Your task to perform on an android device: turn off javascript in the chrome app Image 0: 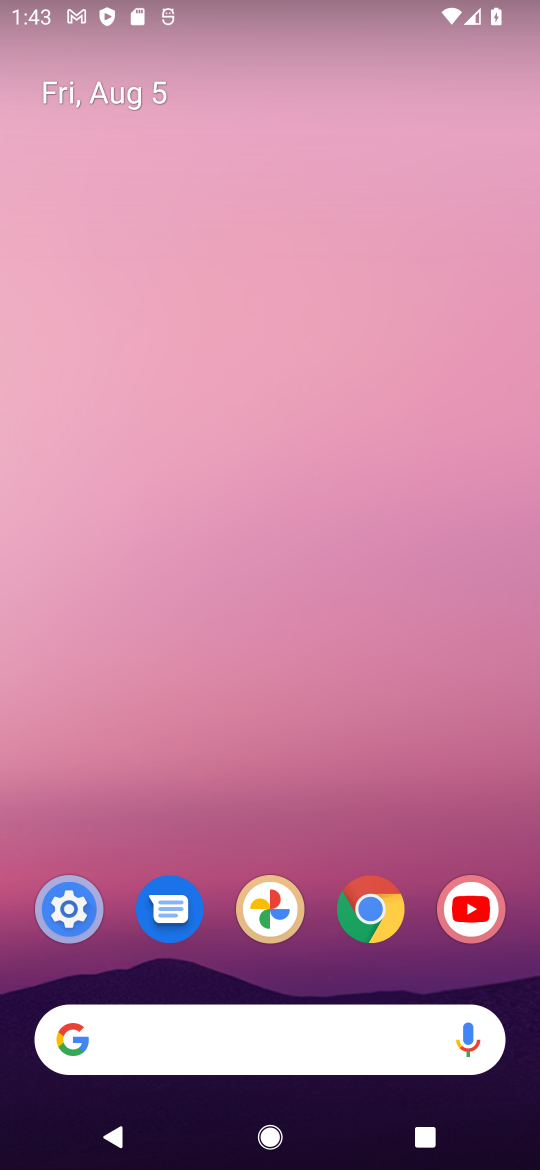
Step 0: click (394, 918)
Your task to perform on an android device: turn off javascript in the chrome app Image 1: 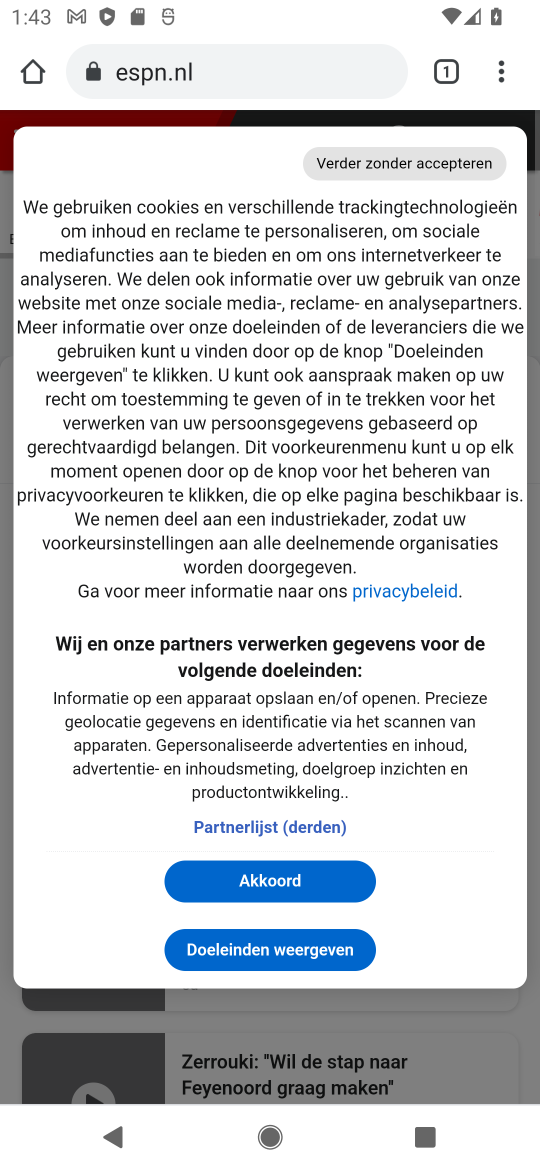
Step 1: click (500, 65)
Your task to perform on an android device: turn off javascript in the chrome app Image 2: 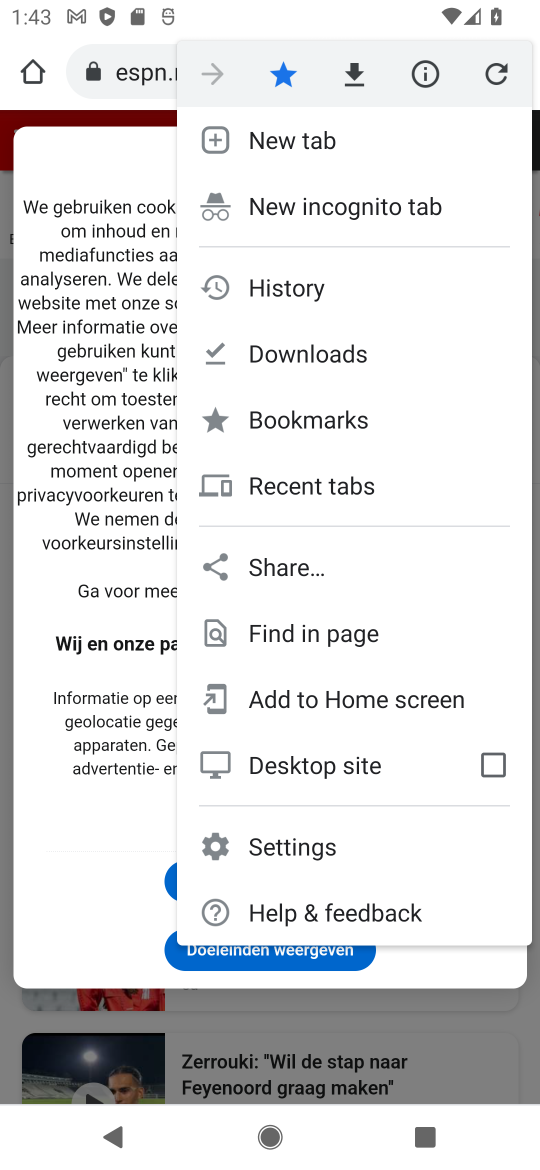
Step 2: click (331, 834)
Your task to perform on an android device: turn off javascript in the chrome app Image 3: 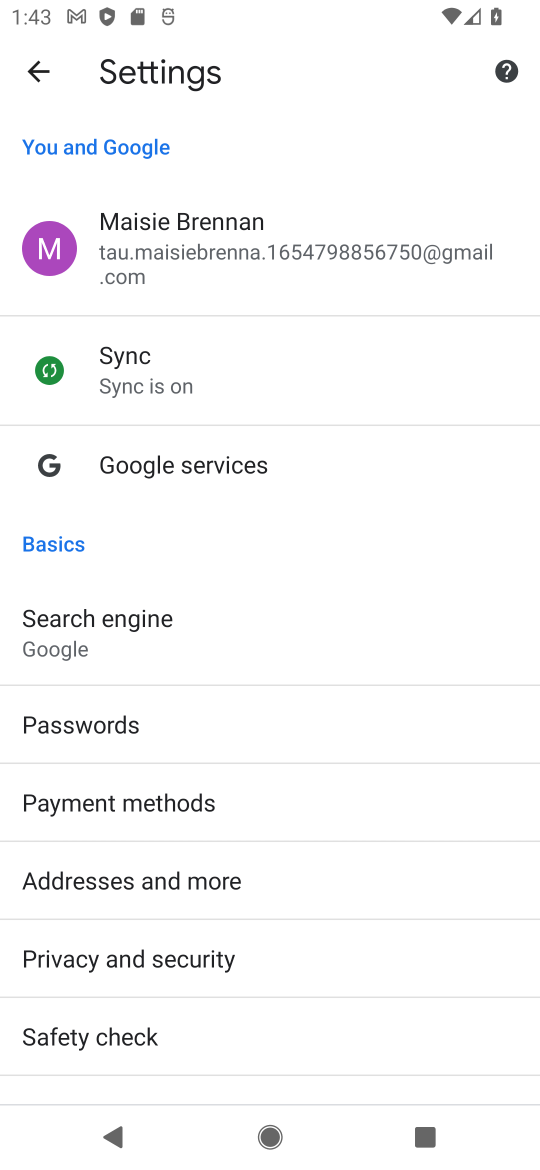
Step 3: drag from (249, 1008) to (333, 393)
Your task to perform on an android device: turn off javascript in the chrome app Image 4: 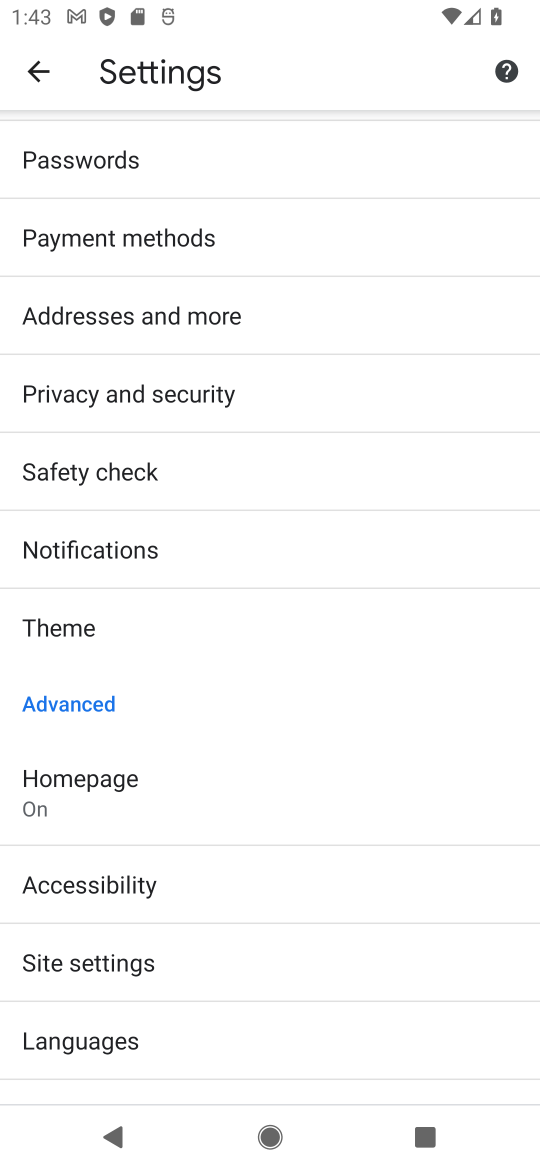
Step 4: click (226, 986)
Your task to perform on an android device: turn off javascript in the chrome app Image 5: 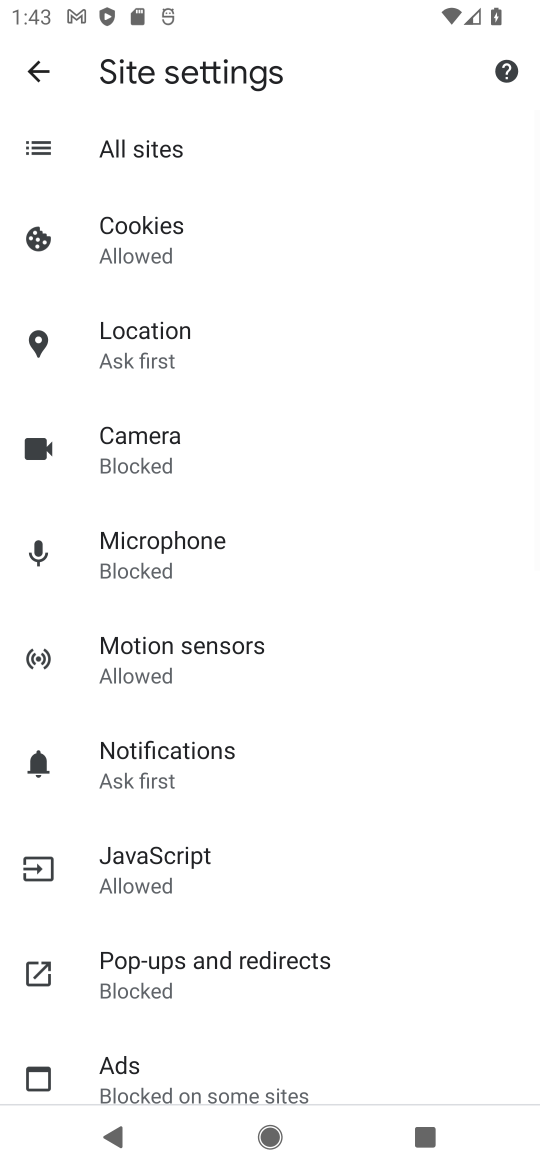
Step 5: click (202, 891)
Your task to perform on an android device: turn off javascript in the chrome app Image 6: 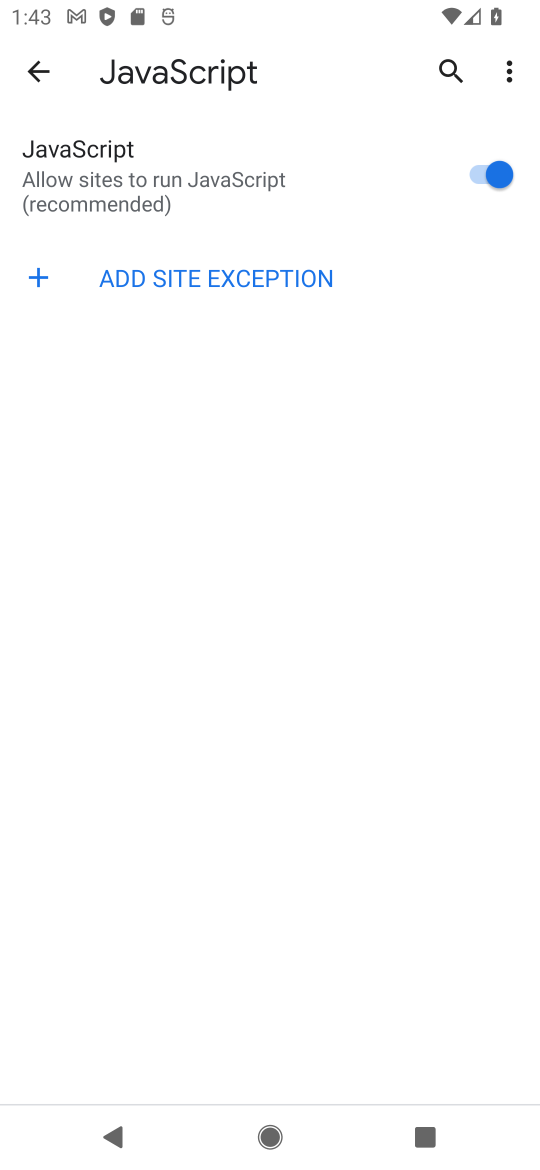
Step 6: click (433, 162)
Your task to perform on an android device: turn off javascript in the chrome app Image 7: 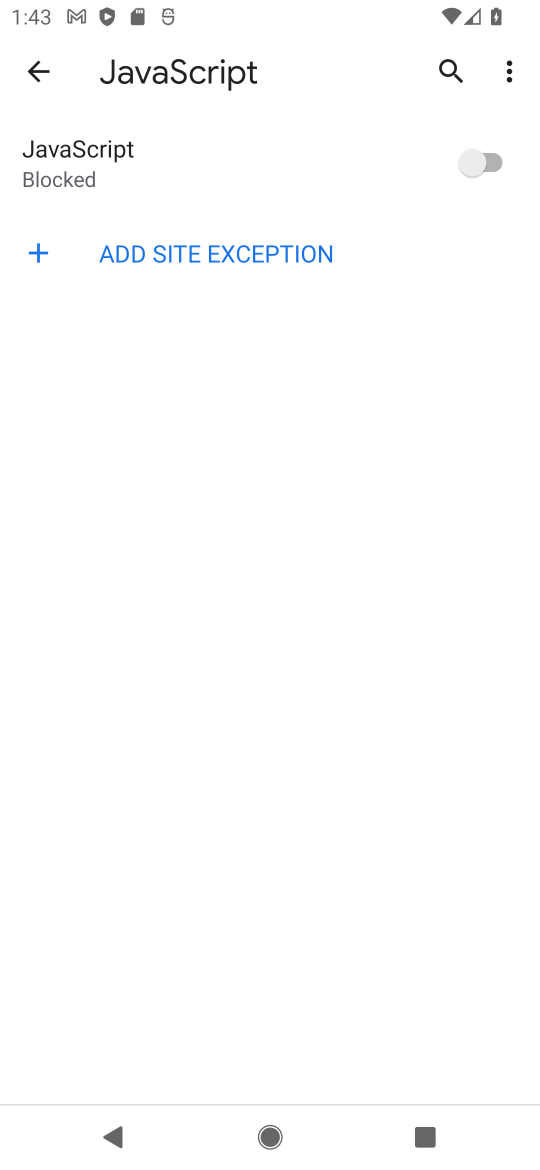
Step 7: task complete